Your task to perform on an android device: Go to Android settings Image 0: 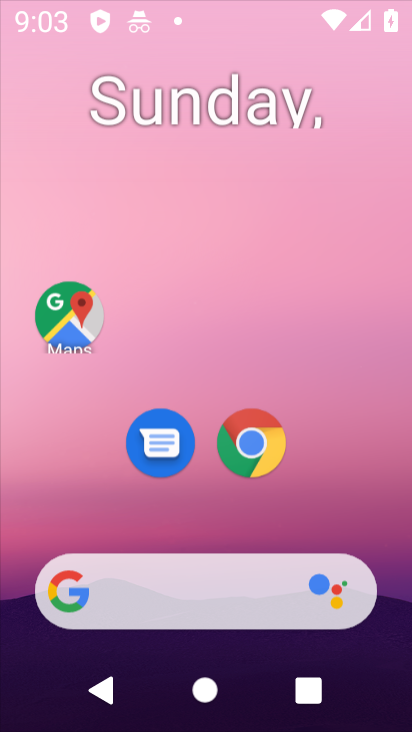
Step 0: click (322, 40)
Your task to perform on an android device: Go to Android settings Image 1: 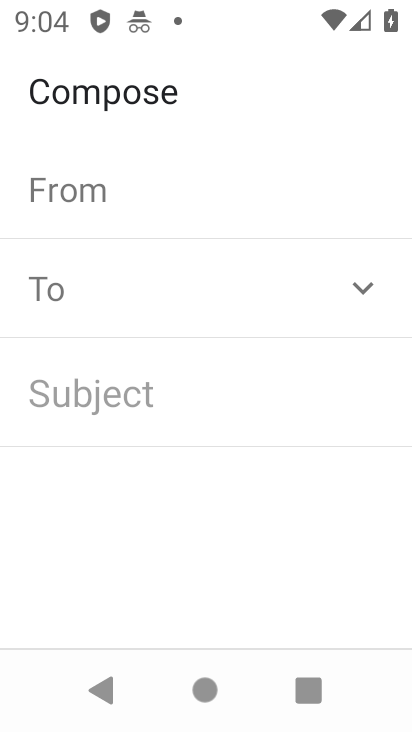
Step 1: drag from (335, 472) to (333, 260)
Your task to perform on an android device: Go to Android settings Image 2: 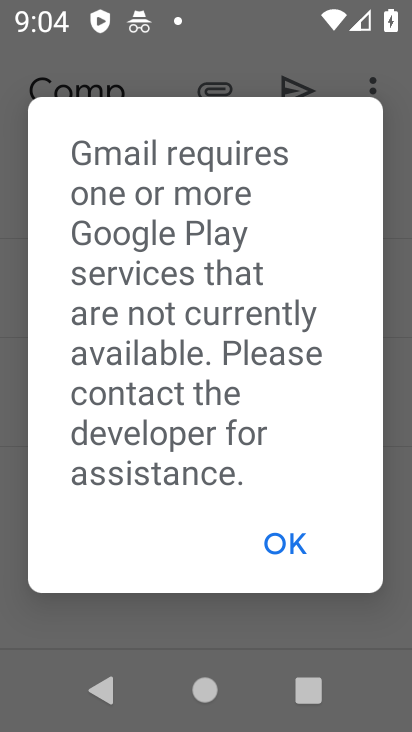
Step 2: press home button
Your task to perform on an android device: Go to Android settings Image 3: 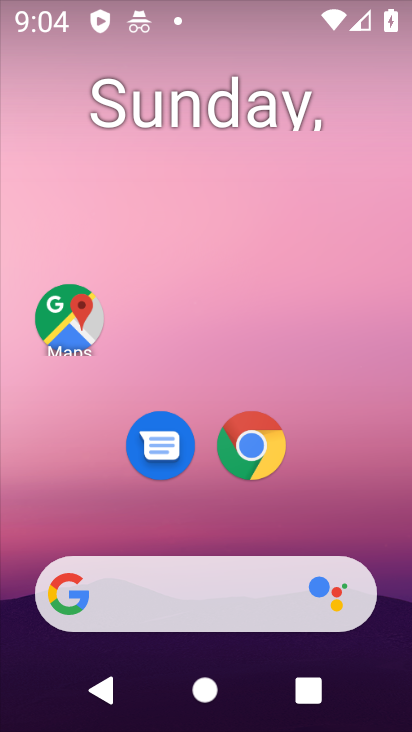
Step 3: drag from (289, 534) to (208, 34)
Your task to perform on an android device: Go to Android settings Image 4: 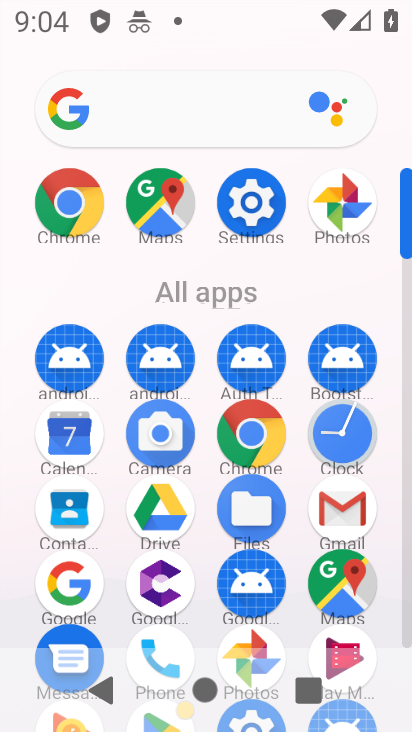
Step 4: click (240, 195)
Your task to perform on an android device: Go to Android settings Image 5: 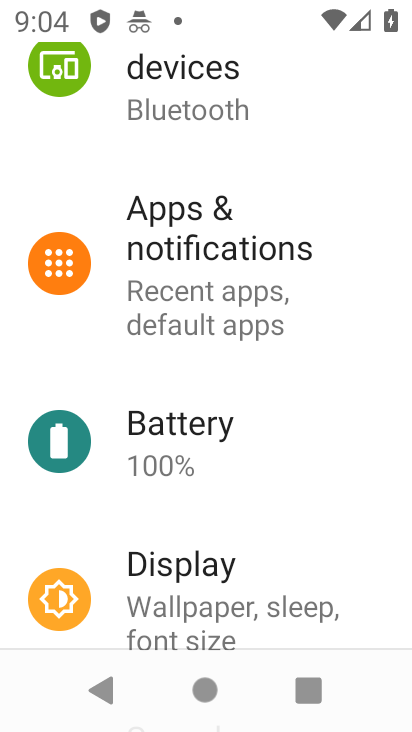
Step 5: drag from (320, 608) to (238, 50)
Your task to perform on an android device: Go to Android settings Image 6: 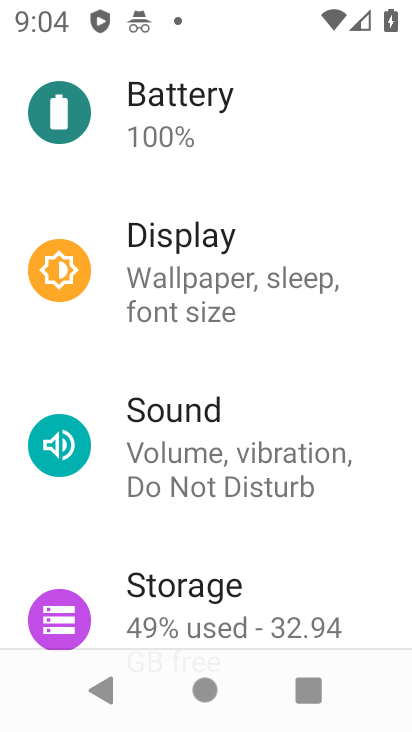
Step 6: drag from (307, 461) to (275, 11)
Your task to perform on an android device: Go to Android settings Image 7: 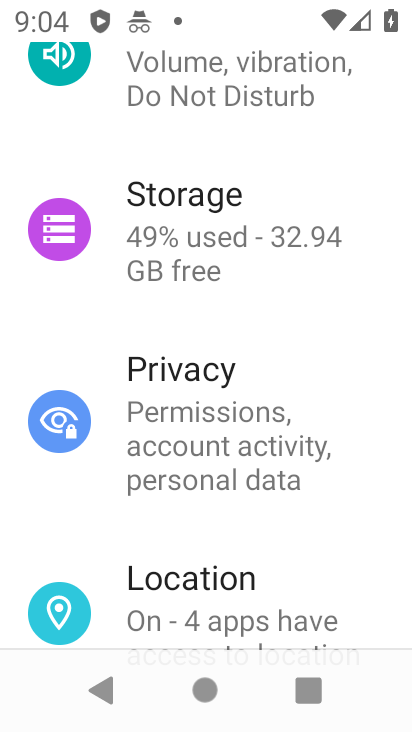
Step 7: drag from (375, 572) to (360, 15)
Your task to perform on an android device: Go to Android settings Image 8: 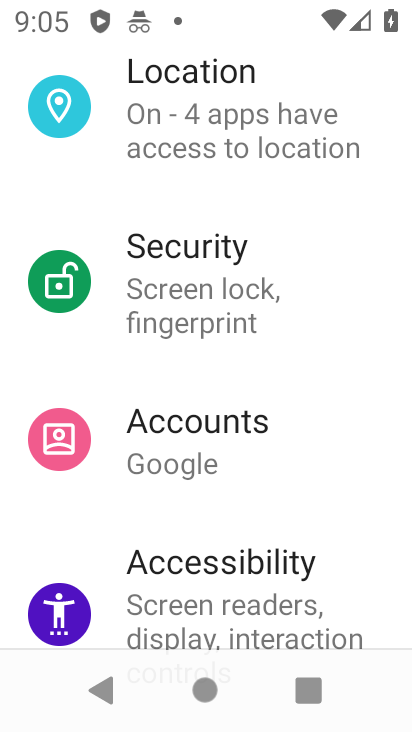
Step 8: drag from (360, 594) to (364, 109)
Your task to perform on an android device: Go to Android settings Image 9: 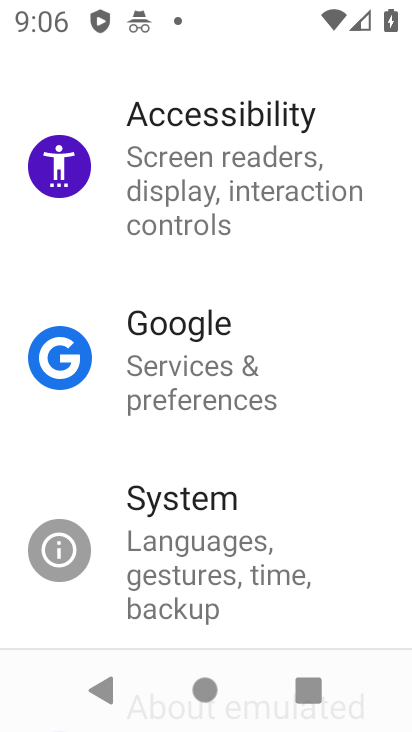
Step 9: drag from (314, 610) to (295, 51)
Your task to perform on an android device: Go to Android settings Image 10: 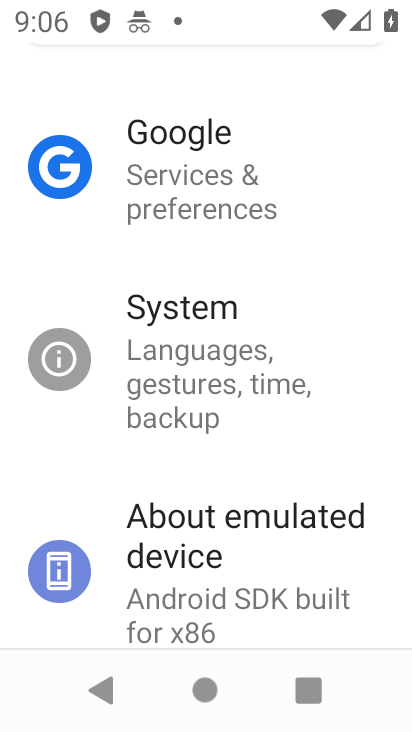
Step 10: drag from (266, 623) to (307, 193)
Your task to perform on an android device: Go to Android settings Image 11: 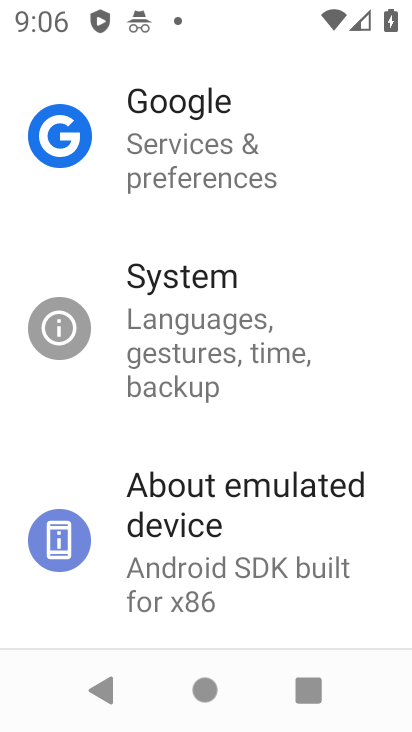
Step 11: click (196, 568)
Your task to perform on an android device: Go to Android settings Image 12: 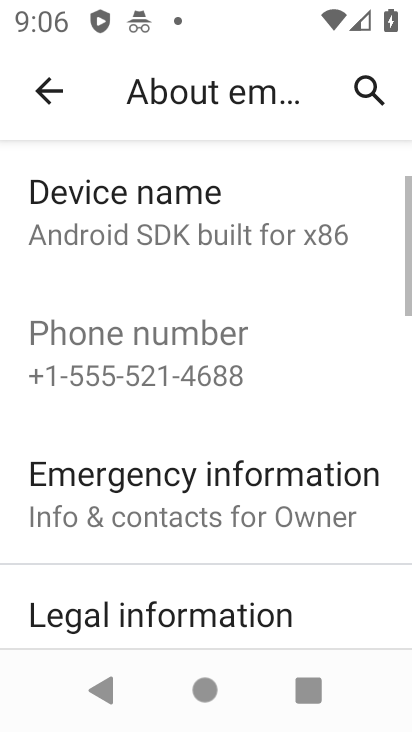
Step 12: drag from (205, 545) to (245, 88)
Your task to perform on an android device: Go to Android settings Image 13: 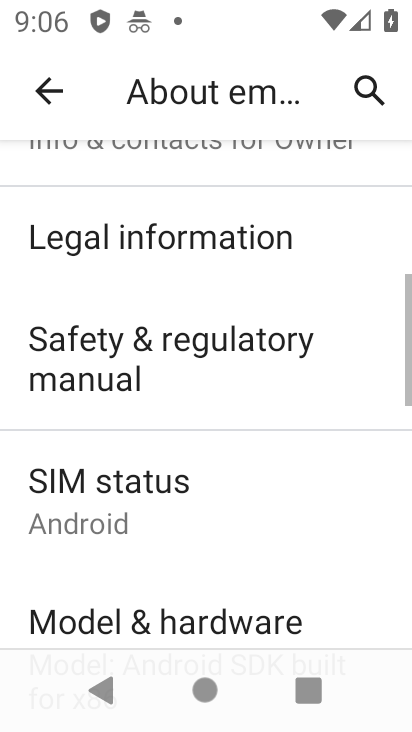
Step 13: drag from (244, 504) to (193, 84)
Your task to perform on an android device: Go to Android settings Image 14: 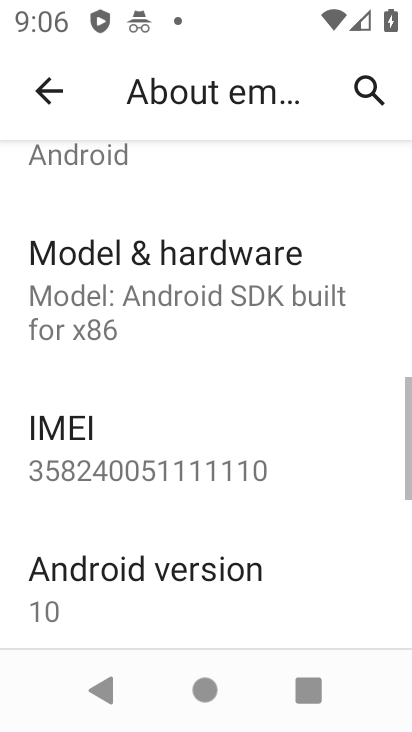
Step 14: drag from (250, 525) to (226, 59)
Your task to perform on an android device: Go to Android settings Image 15: 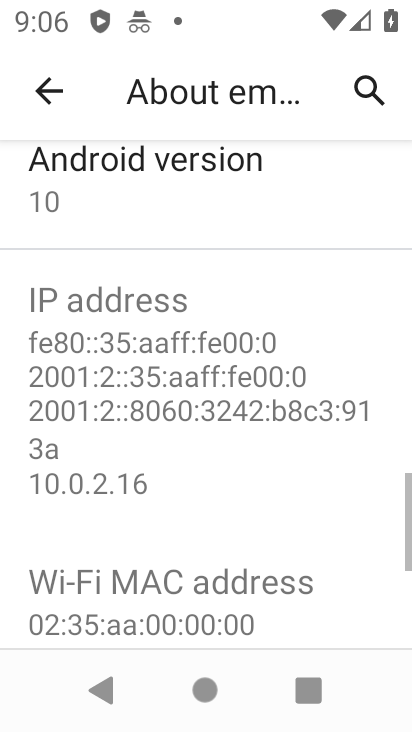
Step 15: click (57, 169)
Your task to perform on an android device: Go to Android settings Image 16: 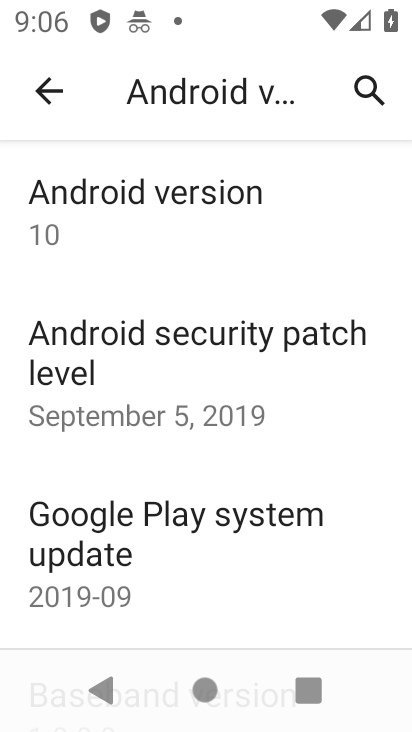
Step 16: task complete